Your task to perform on an android device: Open the stopwatch Image 0: 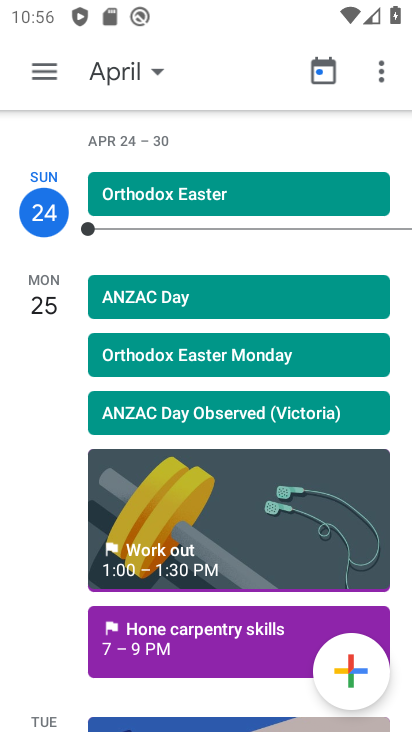
Step 0: press home button
Your task to perform on an android device: Open the stopwatch Image 1: 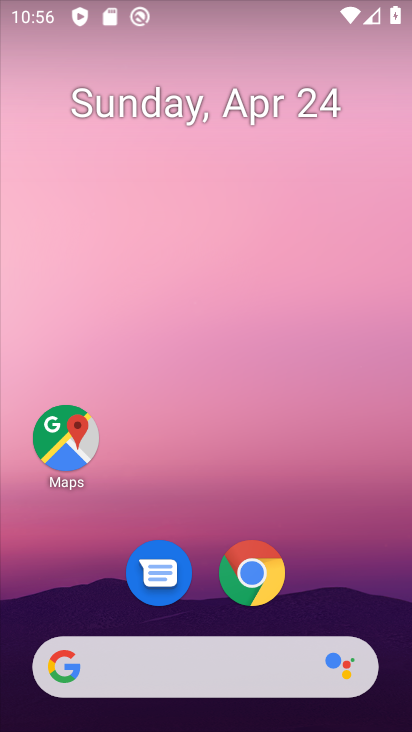
Step 1: drag from (241, 672) to (241, 96)
Your task to perform on an android device: Open the stopwatch Image 2: 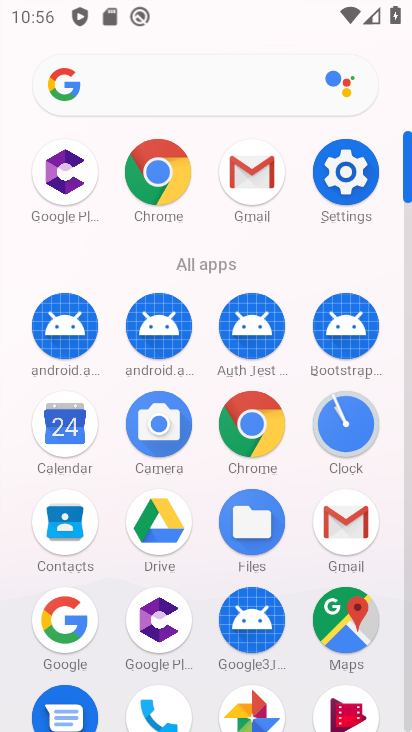
Step 2: click (346, 426)
Your task to perform on an android device: Open the stopwatch Image 3: 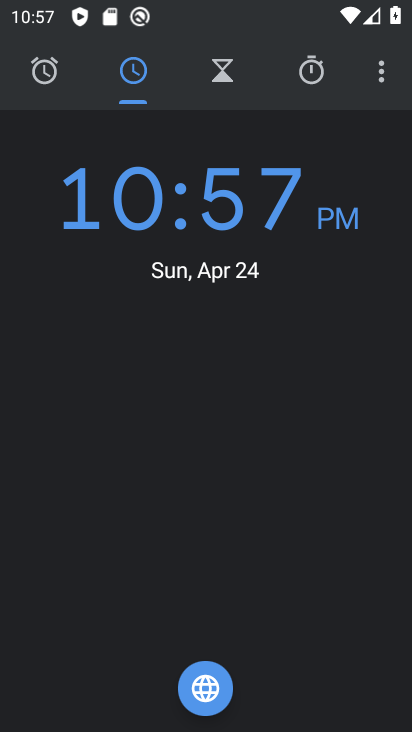
Step 3: click (310, 69)
Your task to perform on an android device: Open the stopwatch Image 4: 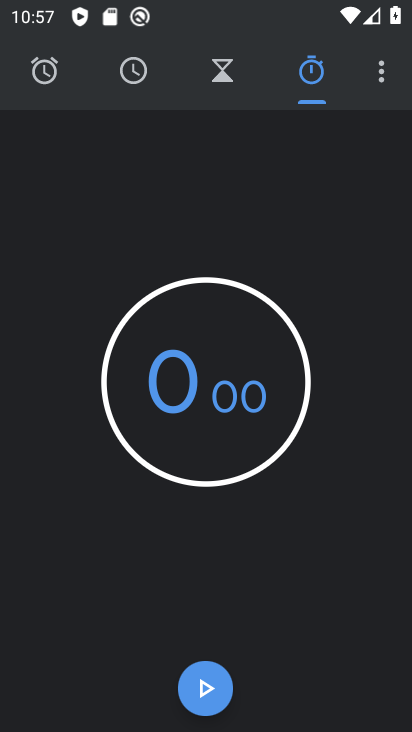
Step 4: task complete